Your task to perform on an android device: Go to privacy settings Image 0: 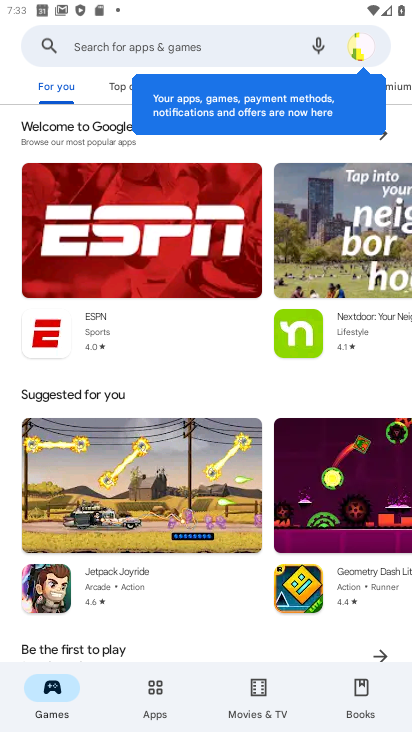
Step 0: press home button
Your task to perform on an android device: Go to privacy settings Image 1: 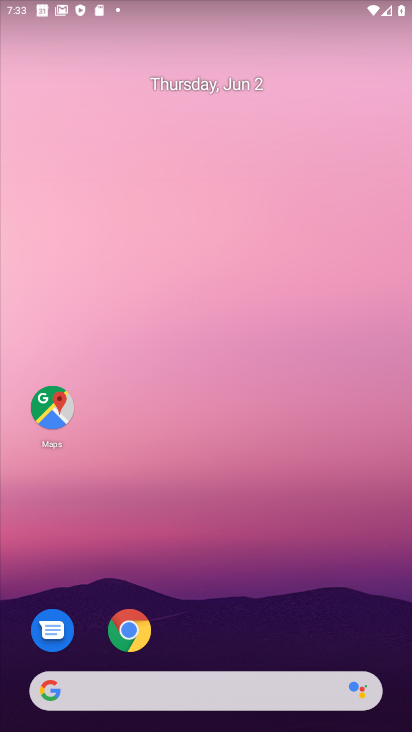
Step 1: drag from (164, 728) to (121, 67)
Your task to perform on an android device: Go to privacy settings Image 2: 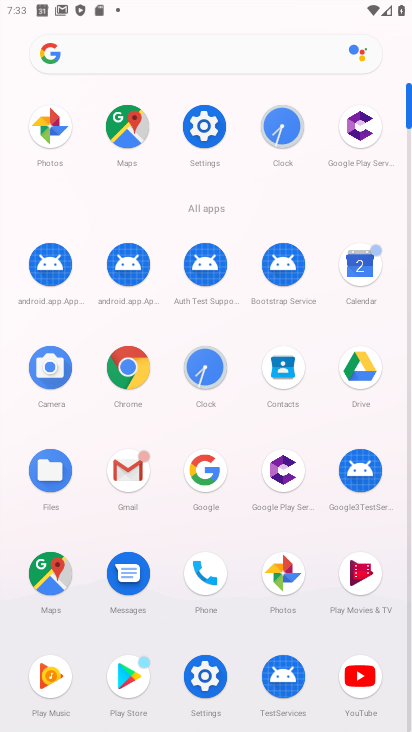
Step 2: click (213, 134)
Your task to perform on an android device: Go to privacy settings Image 3: 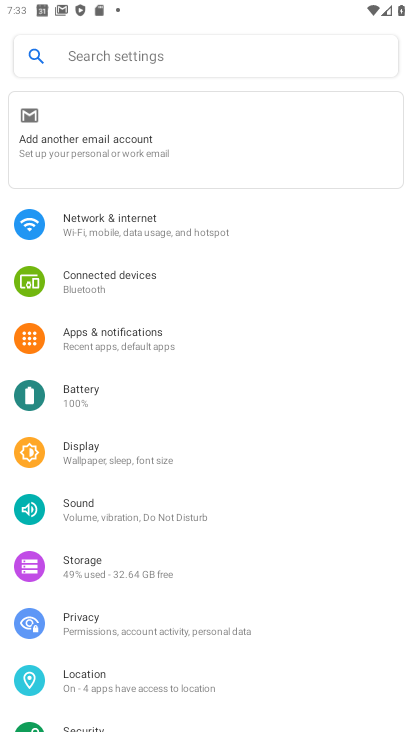
Step 3: click (131, 634)
Your task to perform on an android device: Go to privacy settings Image 4: 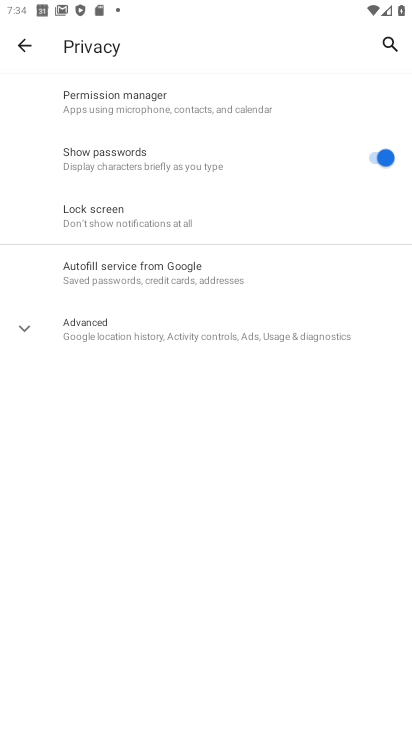
Step 4: task complete